Your task to perform on an android device: Open privacy settings Image 0: 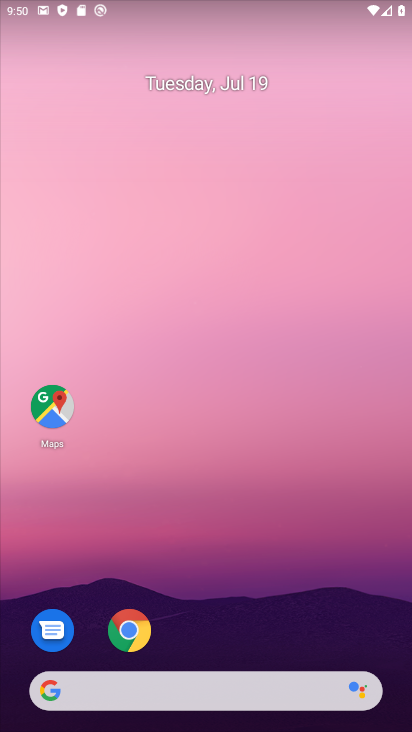
Step 0: click (136, 640)
Your task to perform on an android device: Open privacy settings Image 1: 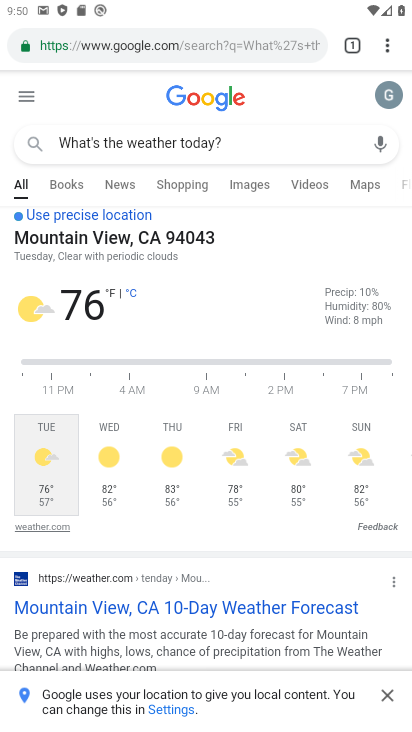
Step 1: click (390, 50)
Your task to perform on an android device: Open privacy settings Image 2: 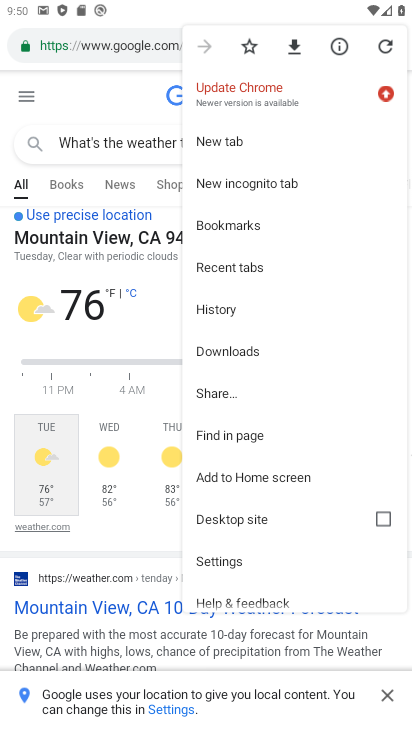
Step 2: click (270, 568)
Your task to perform on an android device: Open privacy settings Image 3: 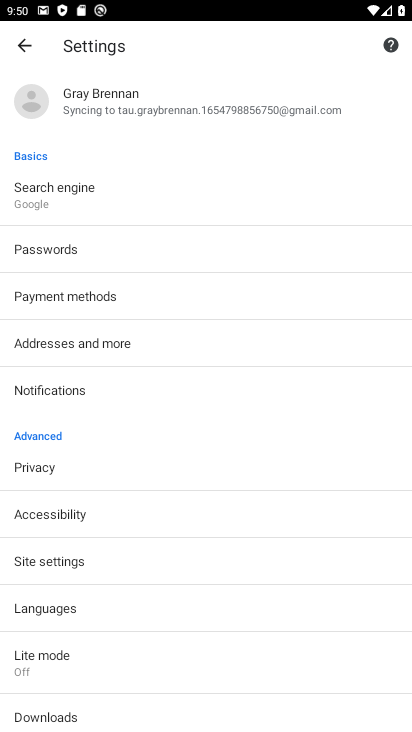
Step 3: click (143, 467)
Your task to perform on an android device: Open privacy settings Image 4: 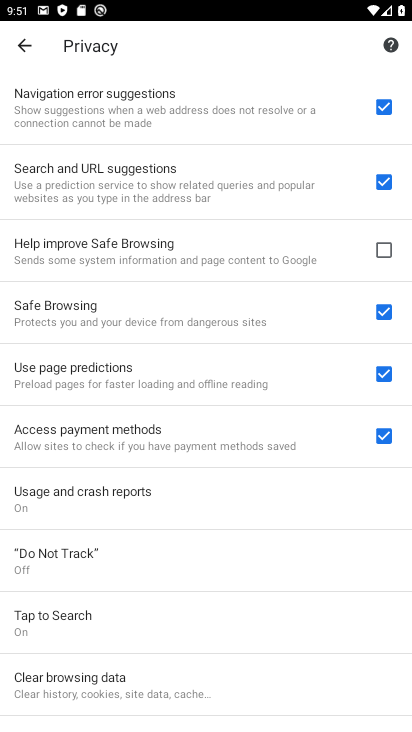
Step 4: task complete